Your task to perform on an android device: change the clock display to analog Image 0: 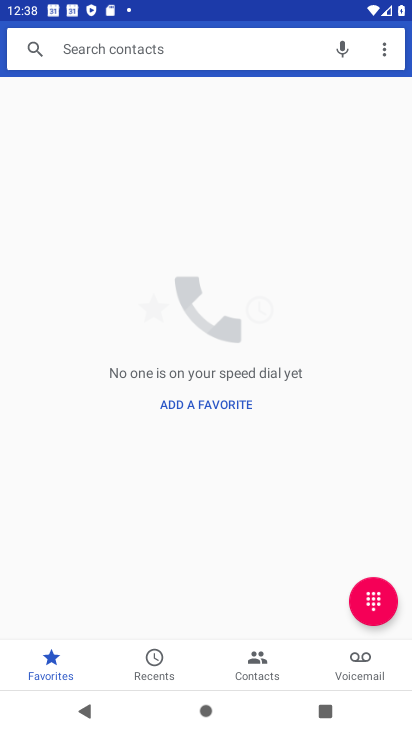
Step 0: press home button
Your task to perform on an android device: change the clock display to analog Image 1: 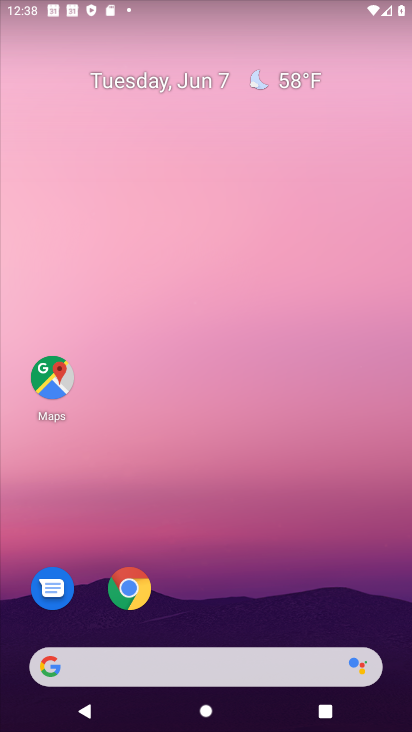
Step 1: drag from (292, 628) to (270, 29)
Your task to perform on an android device: change the clock display to analog Image 2: 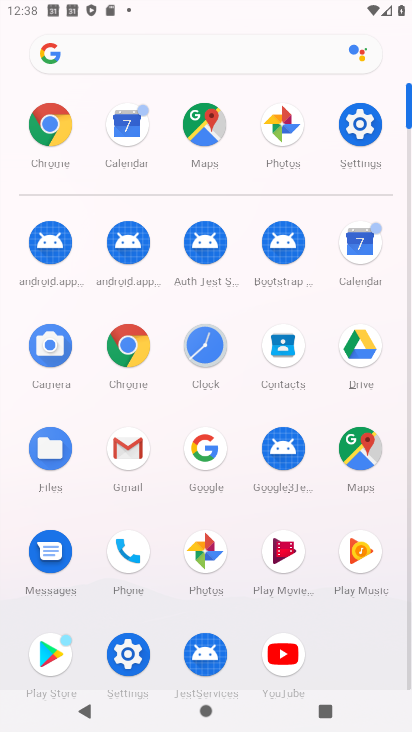
Step 2: click (210, 392)
Your task to perform on an android device: change the clock display to analog Image 3: 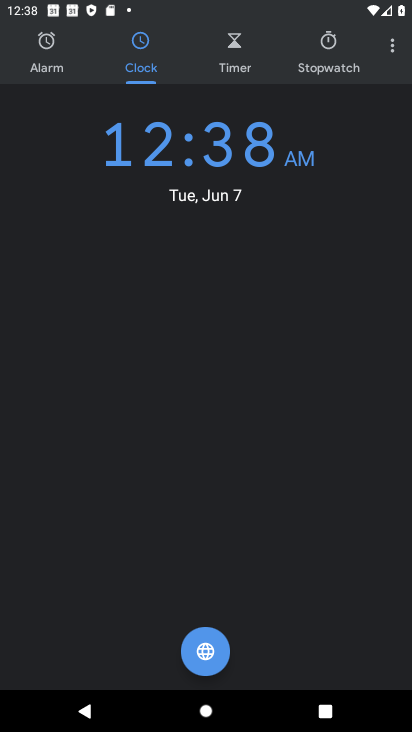
Step 3: click (396, 32)
Your task to perform on an android device: change the clock display to analog Image 4: 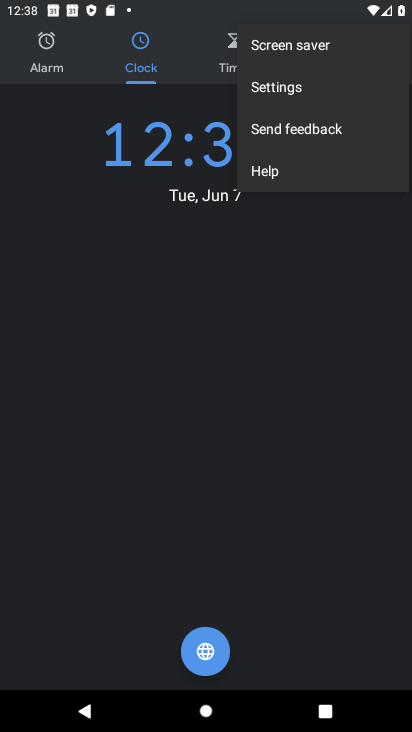
Step 4: click (306, 103)
Your task to perform on an android device: change the clock display to analog Image 5: 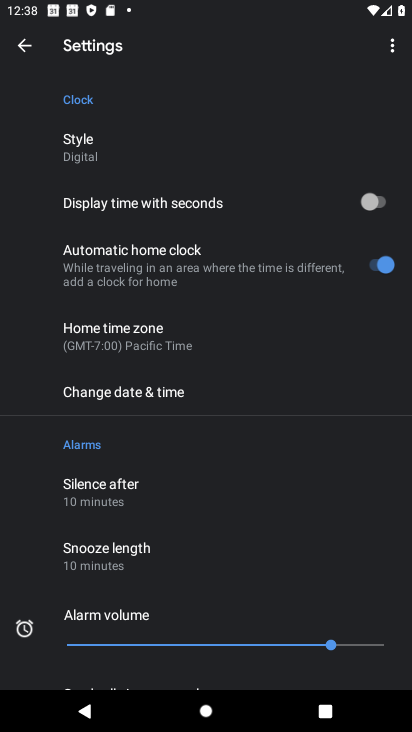
Step 5: task complete